Your task to perform on an android device: toggle pop-ups in chrome Image 0: 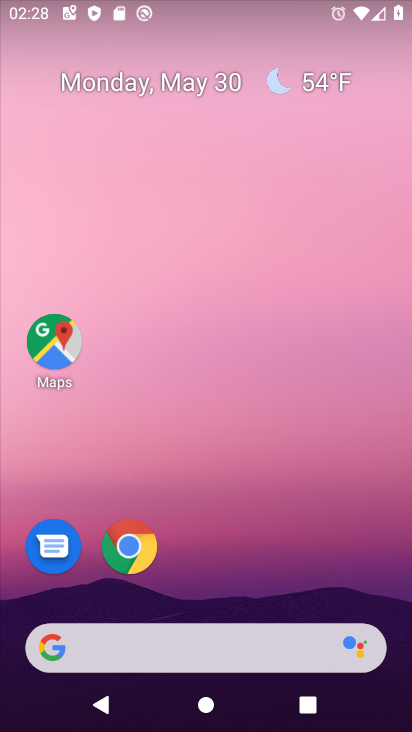
Step 0: click (132, 543)
Your task to perform on an android device: toggle pop-ups in chrome Image 1: 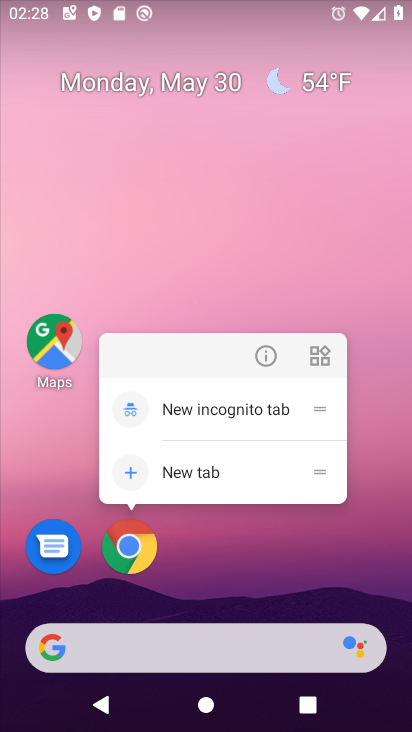
Step 1: click (126, 552)
Your task to perform on an android device: toggle pop-ups in chrome Image 2: 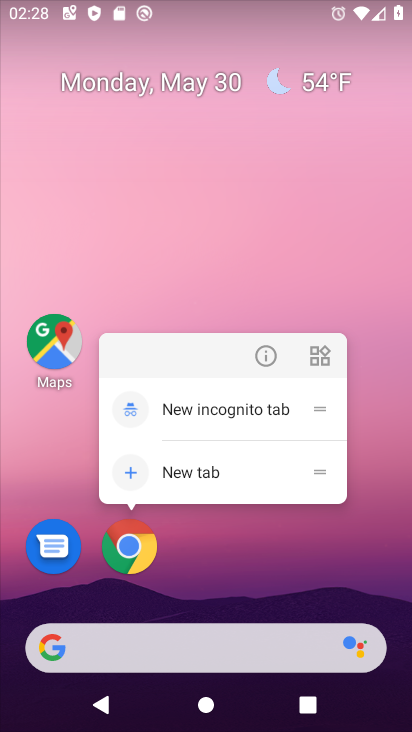
Step 2: click (136, 535)
Your task to perform on an android device: toggle pop-ups in chrome Image 3: 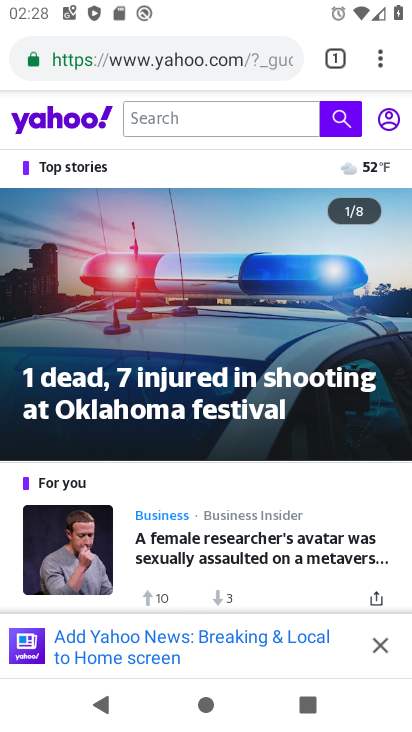
Step 3: click (374, 56)
Your task to perform on an android device: toggle pop-ups in chrome Image 4: 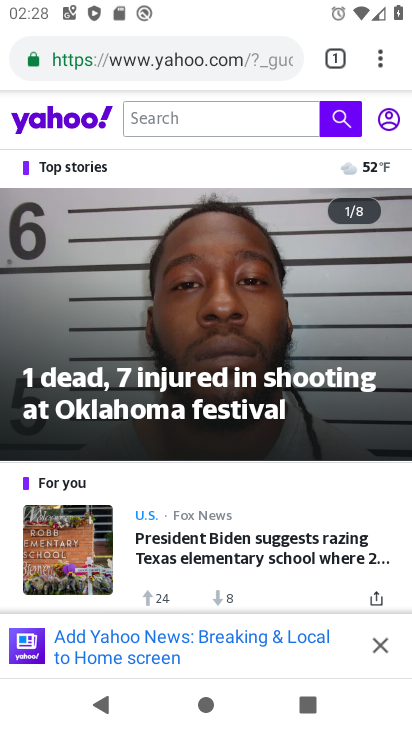
Step 4: click (384, 51)
Your task to perform on an android device: toggle pop-ups in chrome Image 5: 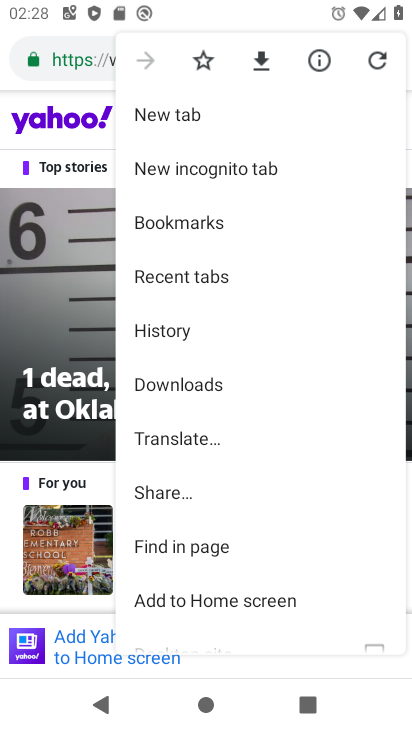
Step 5: drag from (259, 582) to (264, 190)
Your task to perform on an android device: toggle pop-ups in chrome Image 6: 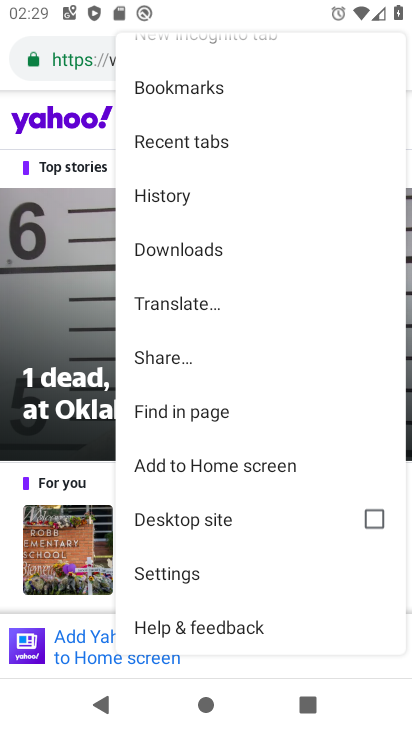
Step 6: click (209, 569)
Your task to perform on an android device: toggle pop-ups in chrome Image 7: 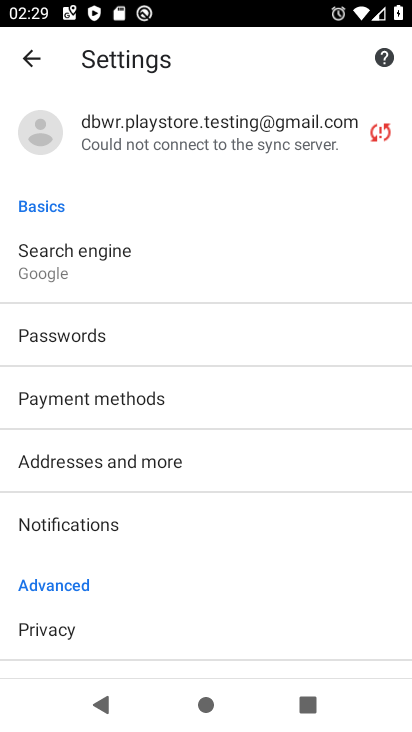
Step 7: drag from (183, 598) to (204, 302)
Your task to perform on an android device: toggle pop-ups in chrome Image 8: 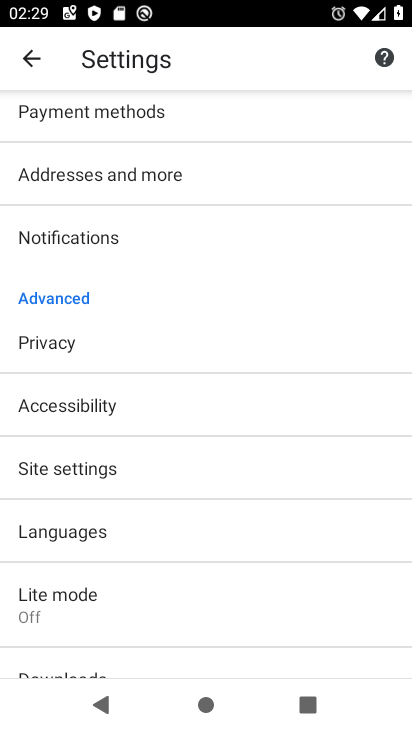
Step 8: click (134, 466)
Your task to perform on an android device: toggle pop-ups in chrome Image 9: 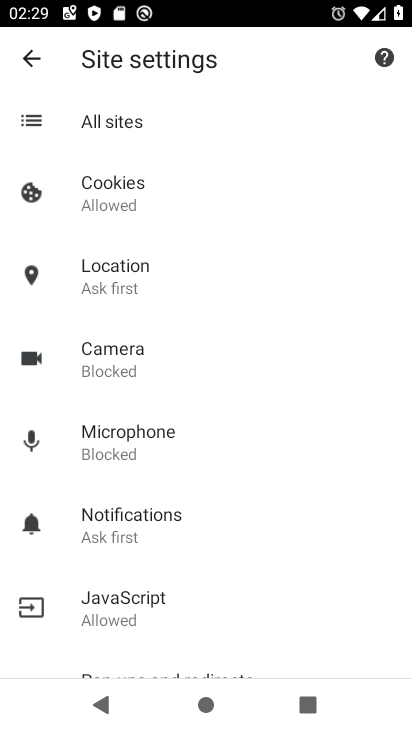
Step 9: drag from (176, 602) to (198, 384)
Your task to perform on an android device: toggle pop-ups in chrome Image 10: 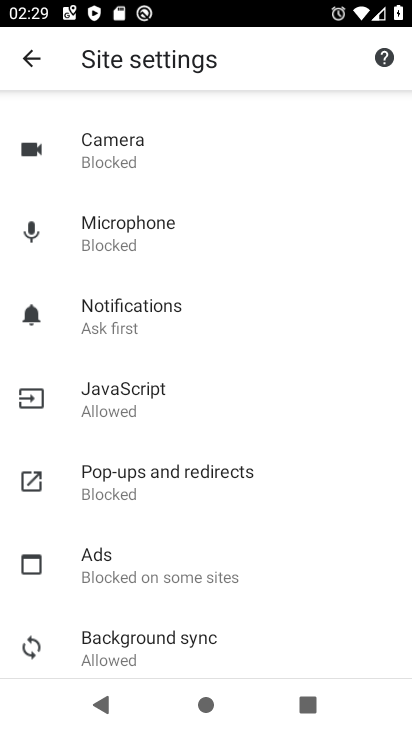
Step 10: click (170, 488)
Your task to perform on an android device: toggle pop-ups in chrome Image 11: 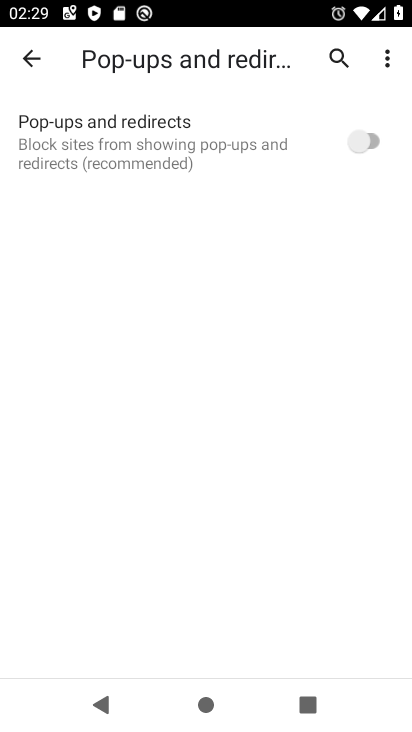
Step 11: click (366, 134)
Your task to perform on an android device: toggle pop-ups in chrome Image 12: 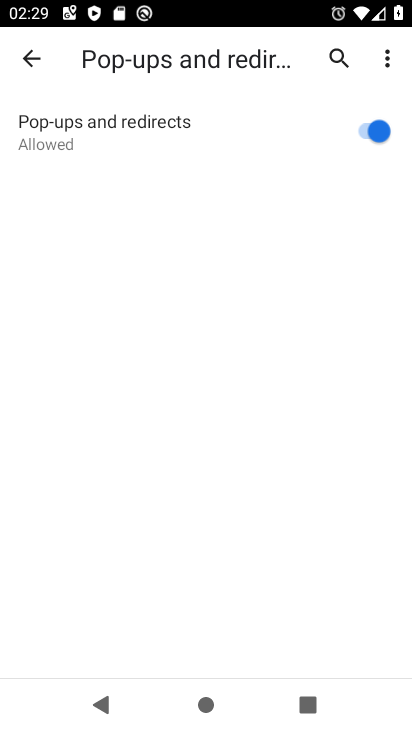
Step 12: task complete